Your task to perform on an android device: change notification settings in the gmail app Image 0: 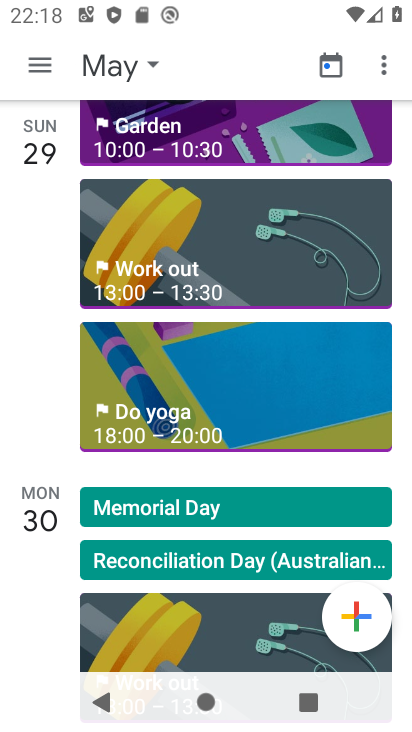
Step 0: press home button
Your task to perform on an android device: change notification settings in the gmail app Image 1: 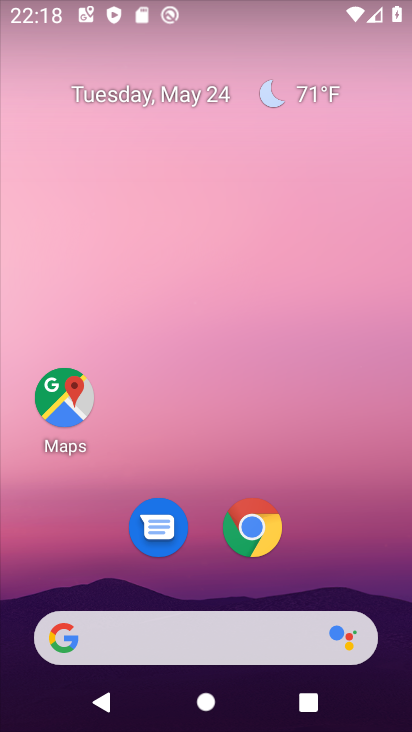
Step 1: drag from (317, 573) to (346, 65)
Your task to perform on an android device: change notification settings in the gmail app Image 2: 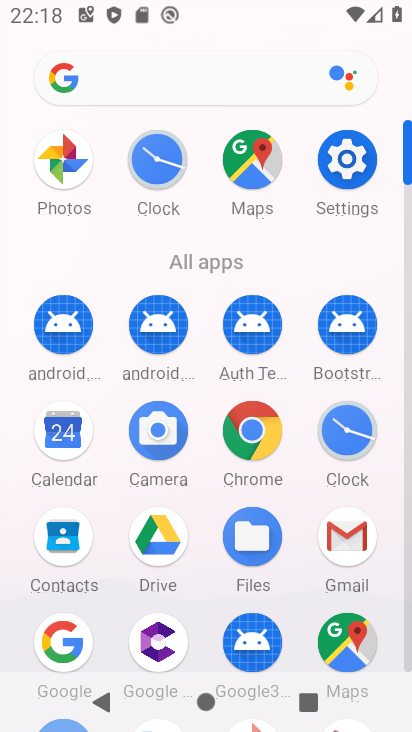
Step 2: click (339, 540)
Your task to perform on an android device: change notification settings in the gmail app Image 3: 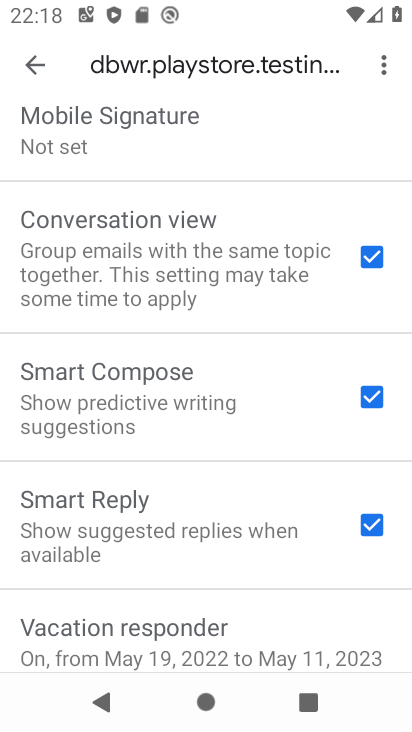
Step 3: drag from (149, 346) to (212, 724)
Your task to perform on an android device: change notification settings in the gmail app Image 4: 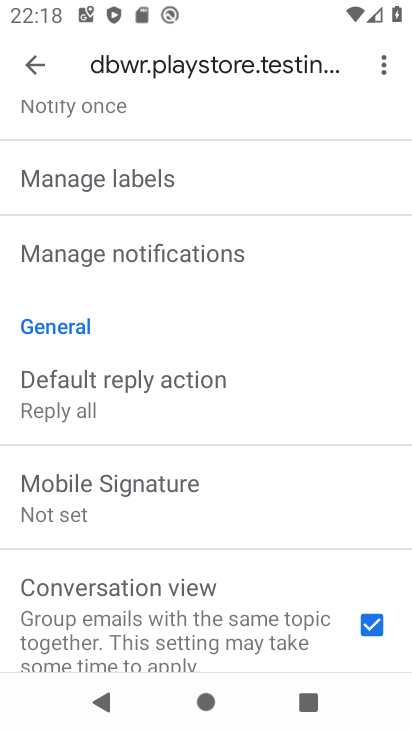
Step 4: click (208, 255)
Your task to perform on an android device: change notification settings in the gmail app Image 5: 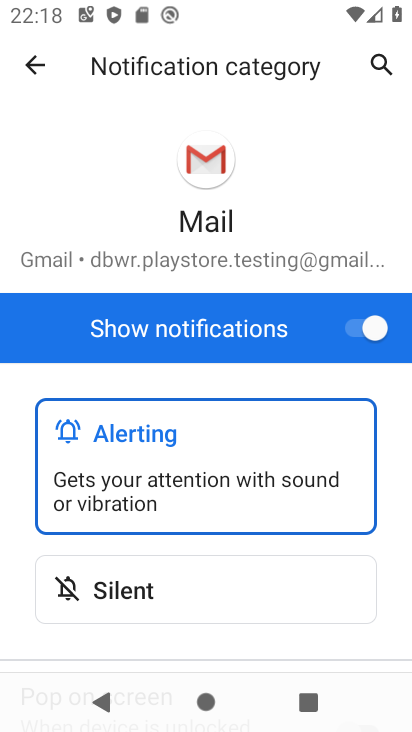
Step 5: click (358, 337)
Your task to perform on an android device: change notification settings in the gmail app Image 6: 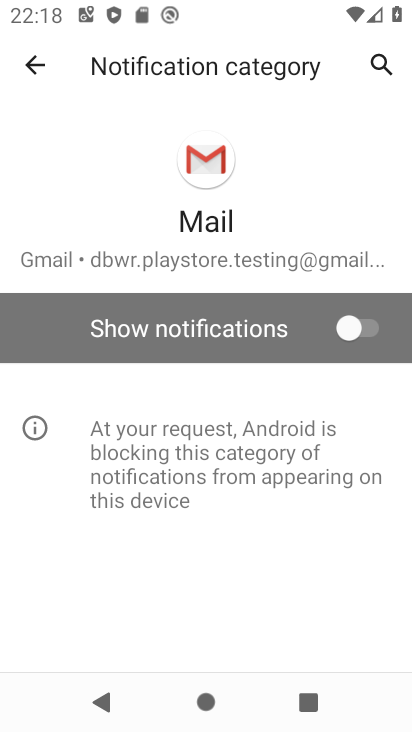
Step 6: task complete